Your task to perform on an android device: read, delete, or share a saved page in the chrome app Image 0: 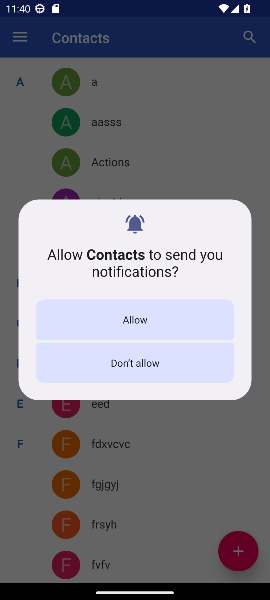
Step 0: press home button
Your task to perform on an android device: read, delete, or share a saved page in the chrome app Image 1: 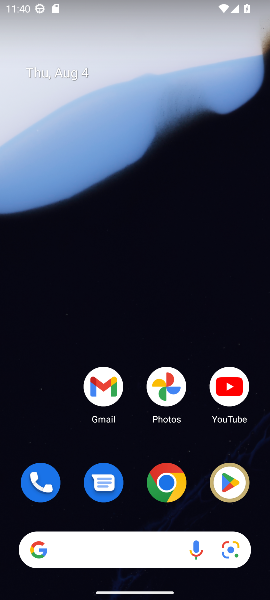
Step 1: click (154, 474)
Your task to perform on an android device: read, delete, or share a saved page in the chrome app Image 2: 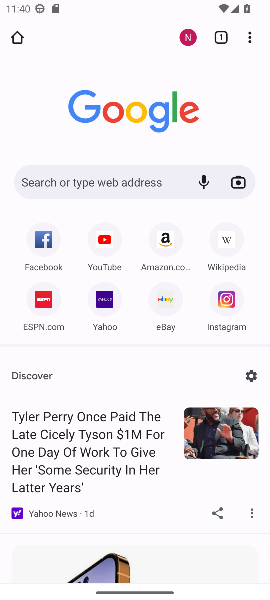
Step 2: click (247, 45)
Your task to perform on an android device: read, delete, or share a saved page in the chrome app Image 3: 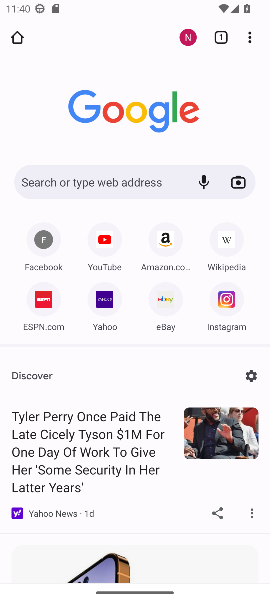
Step 3: drag from (247, 45) to (158, 193)
Your task to perform on an android device: read, delete, or share a saved page in the chrome app Image 4: 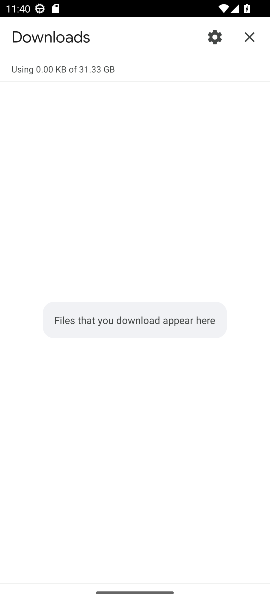
Step 4: click (80, 44)
Your task to perform on an android device: read, delete, or share a saved page in the chrome app Image 5: 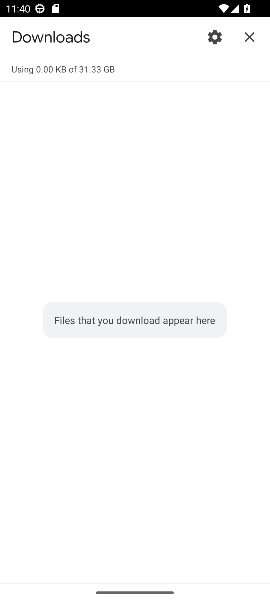
Step 5: click (78, 69)
Your task to perform on an android device: read, delete, or share a saved page in the chrome app Image 6: 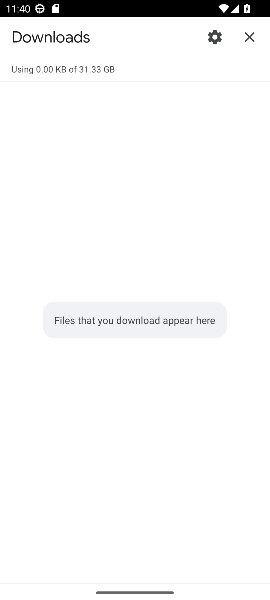
Step 6: task complete